Your task to perform on an android device: Go to accessibility settings Image 0: 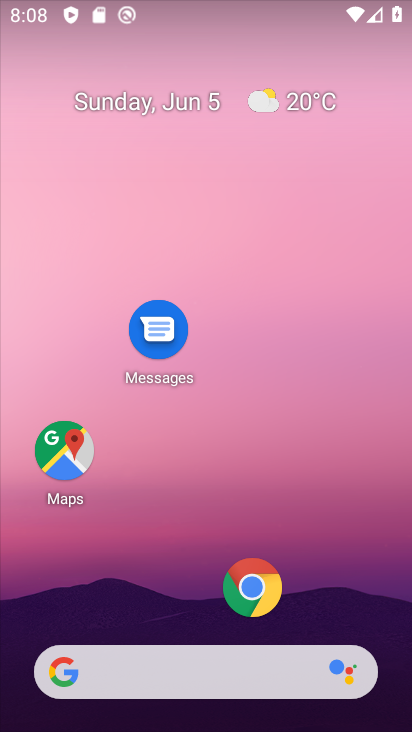
Step 0: drag from (213, 672) to (269, 184)
Your task to perform on an android device: Go to accessibility settings Image 1: 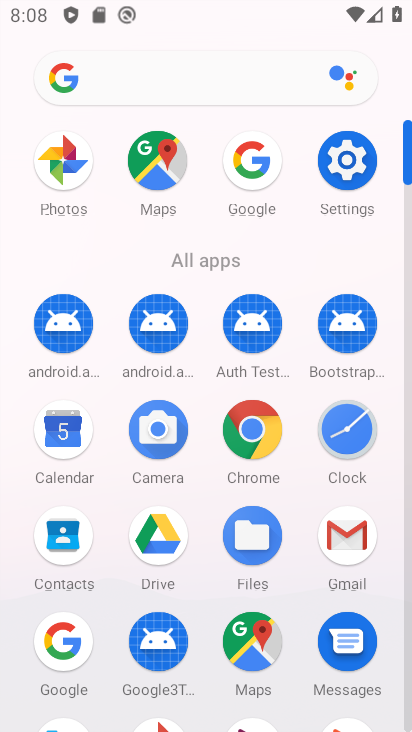
Step 1: click (349, 185)
Your task to perform on an android device: Go to accessibility settings Image 2: 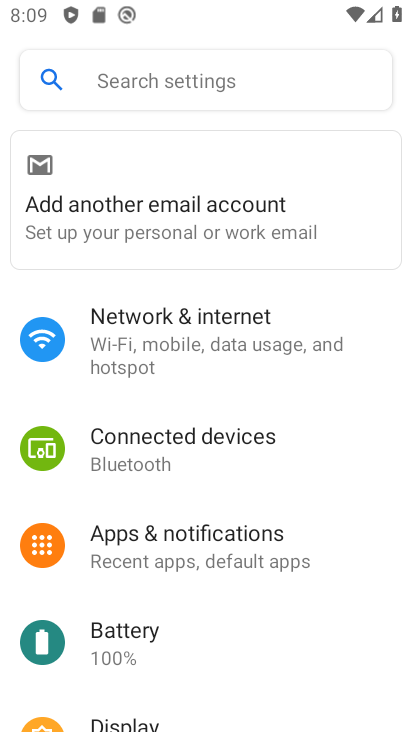
Step 2: drag from (278, 590) to (332, 154)
Your task to perform on an android device: Go to accessibility settings Image 3: 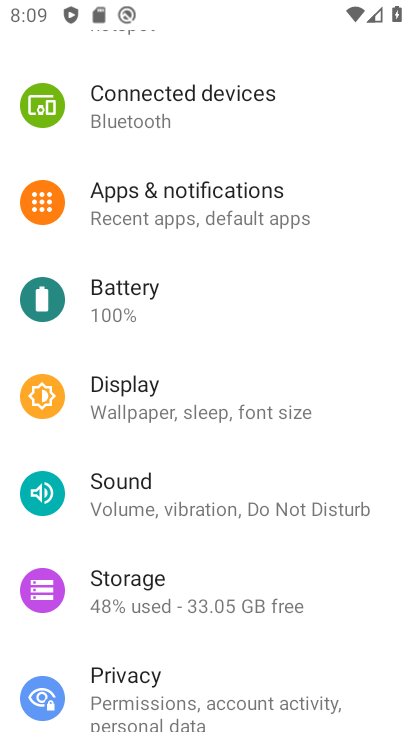
Step 3: drag from (175, 493) to (226, 200)
Your task to perform on an android device: Go to accessibility settings Image 4: 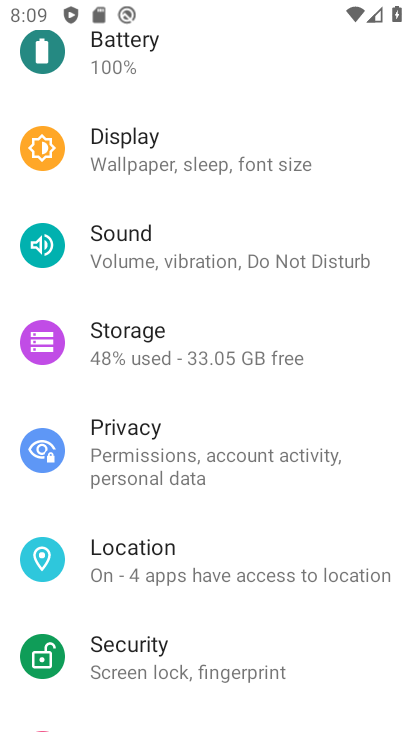
Step 4: drag from (207, 464) to (247, 227)
Your task to perform on an android device: Go to accessibility settings Image 5: 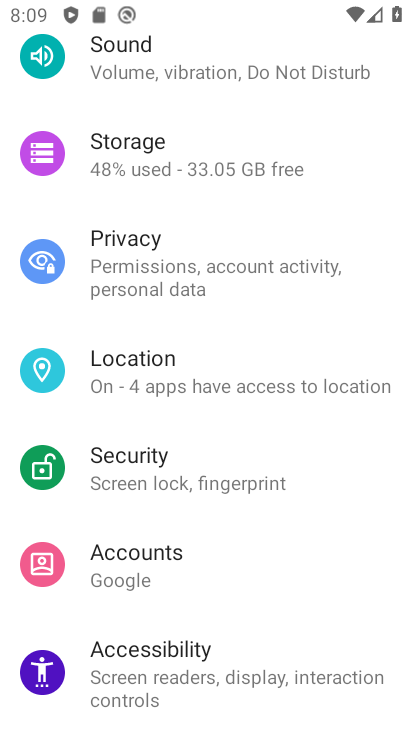
Step 5: click (219, 669)
Your task to perform on an android device: Go to accessibility settings Image 6: 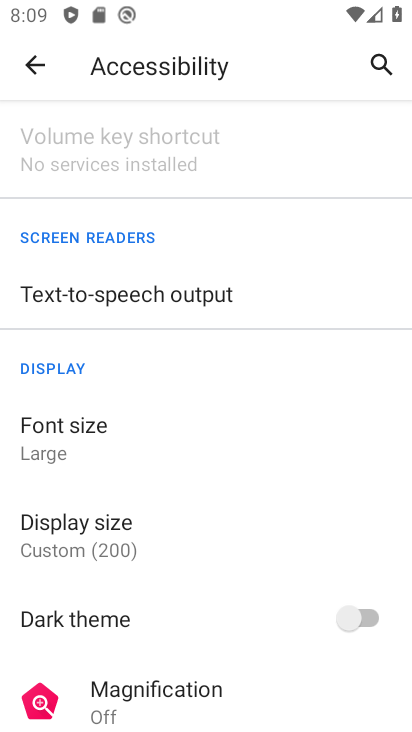
Step 6: task complete